Your task to perform on an android device: What's the price of the LG TV? Image 0: 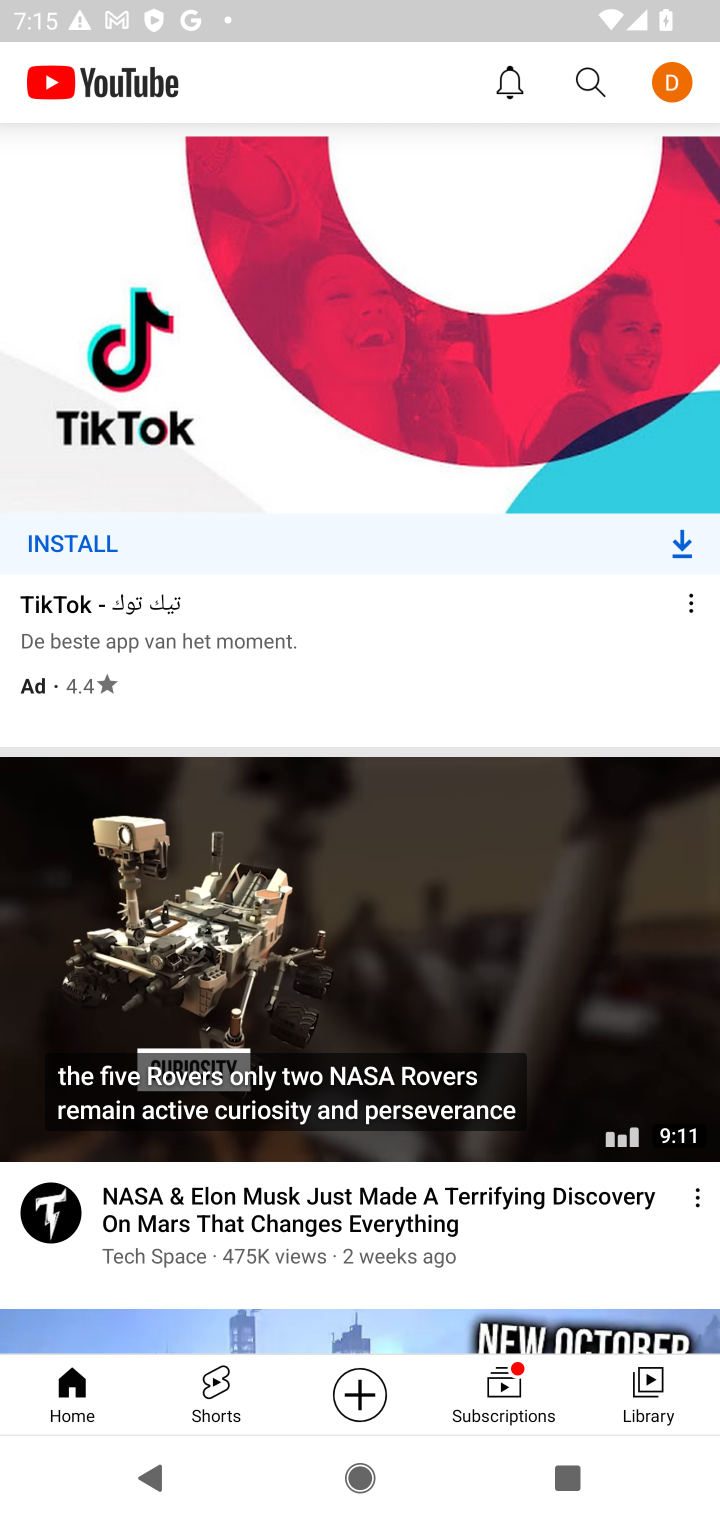
Step 0: press home button
Your task to perform on an android device: What's the price of the LG TV? Image 1: 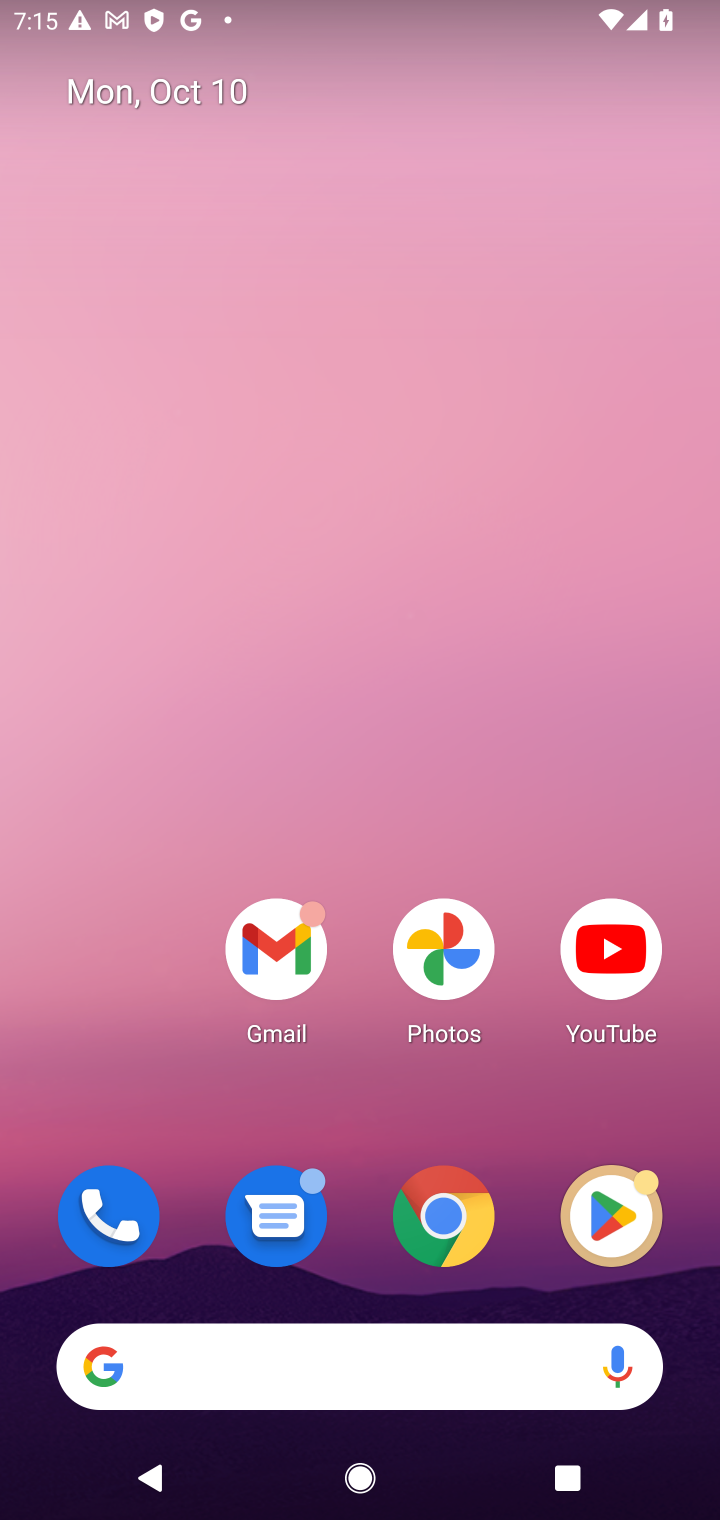
Step 1: drag from (339, 1303) to (575, 443)
Your task to perform on an android device: What's the price of the LG TV? Image 2: 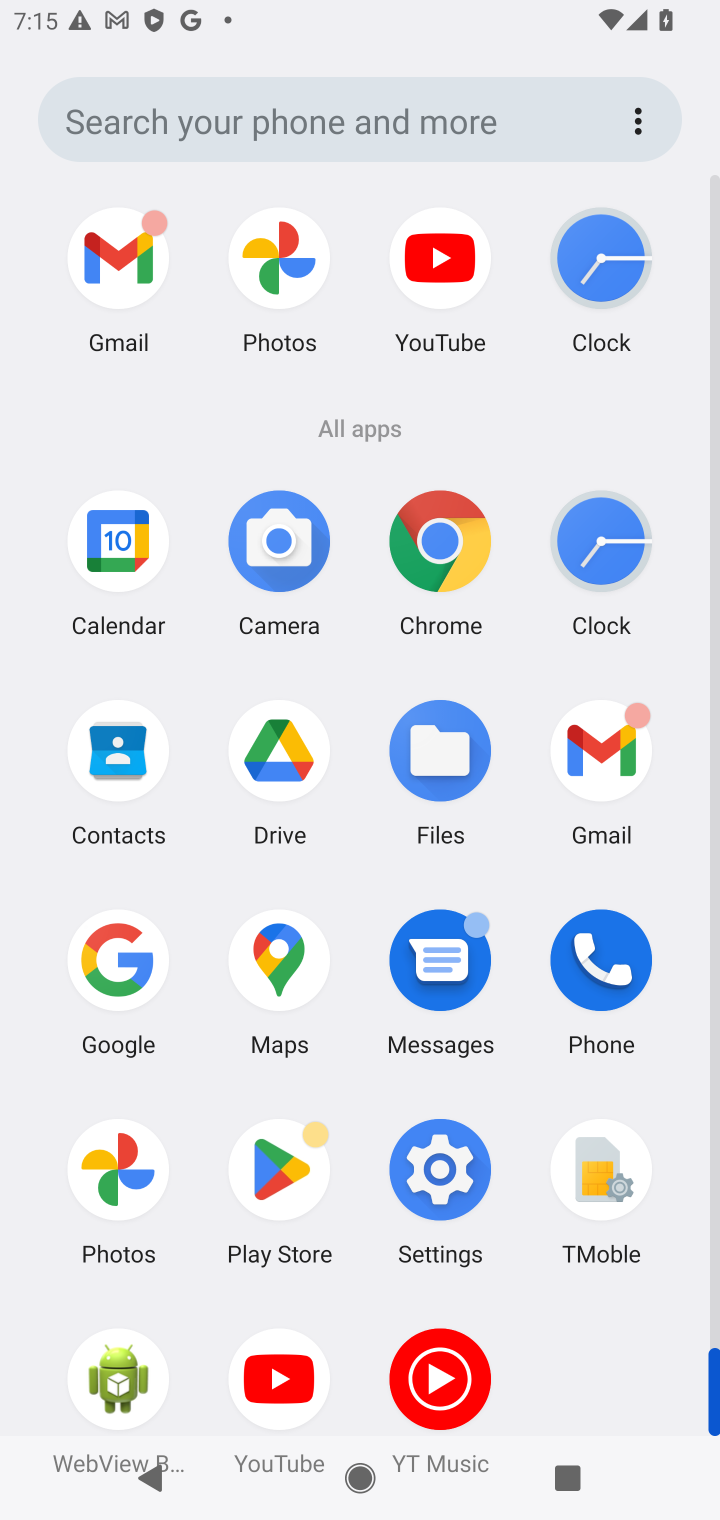
Step 2: click (99, 958)
Your task to perform on an android device: What's the price of the LG TV? Image 3: 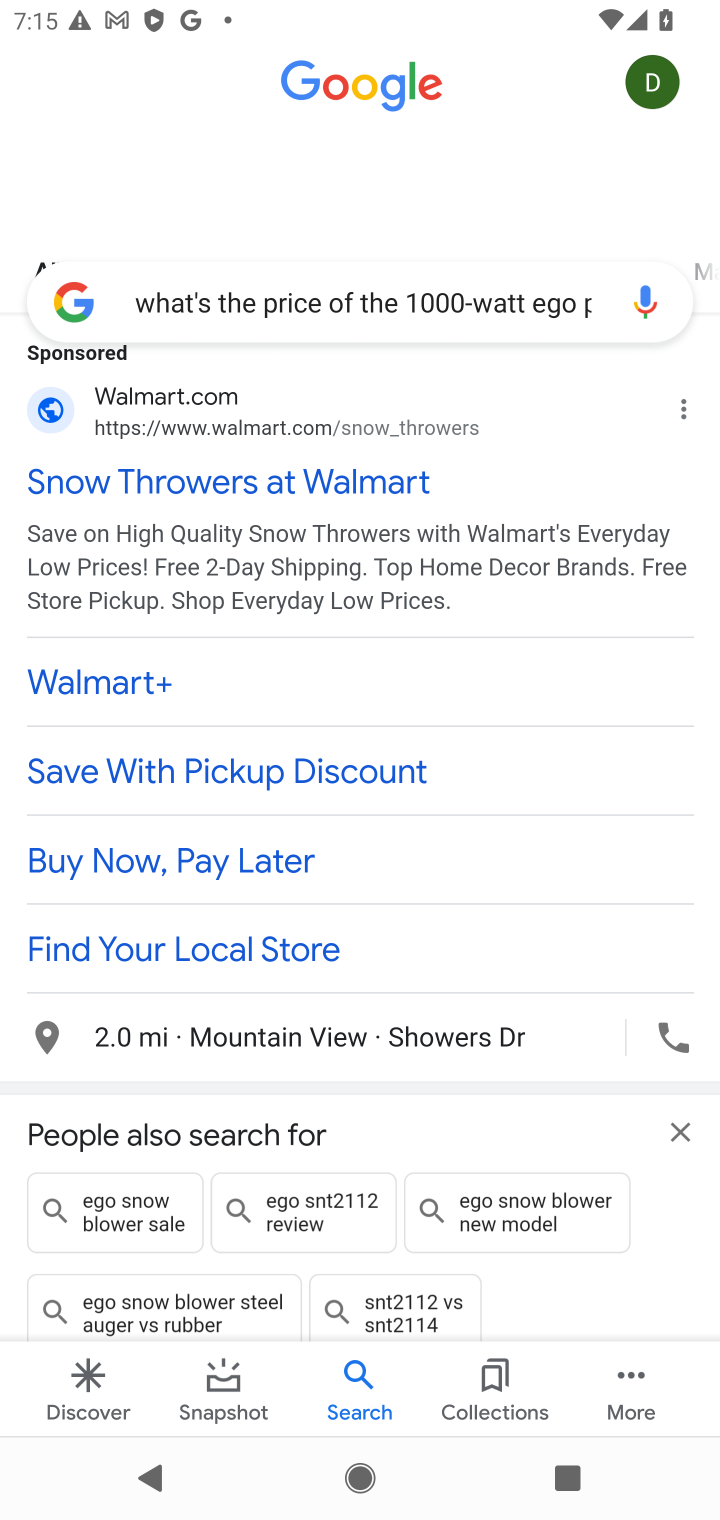
Step 3: click (358, 305)
Your task to perform on an android device: What's the price of the LG TV? Image 4: 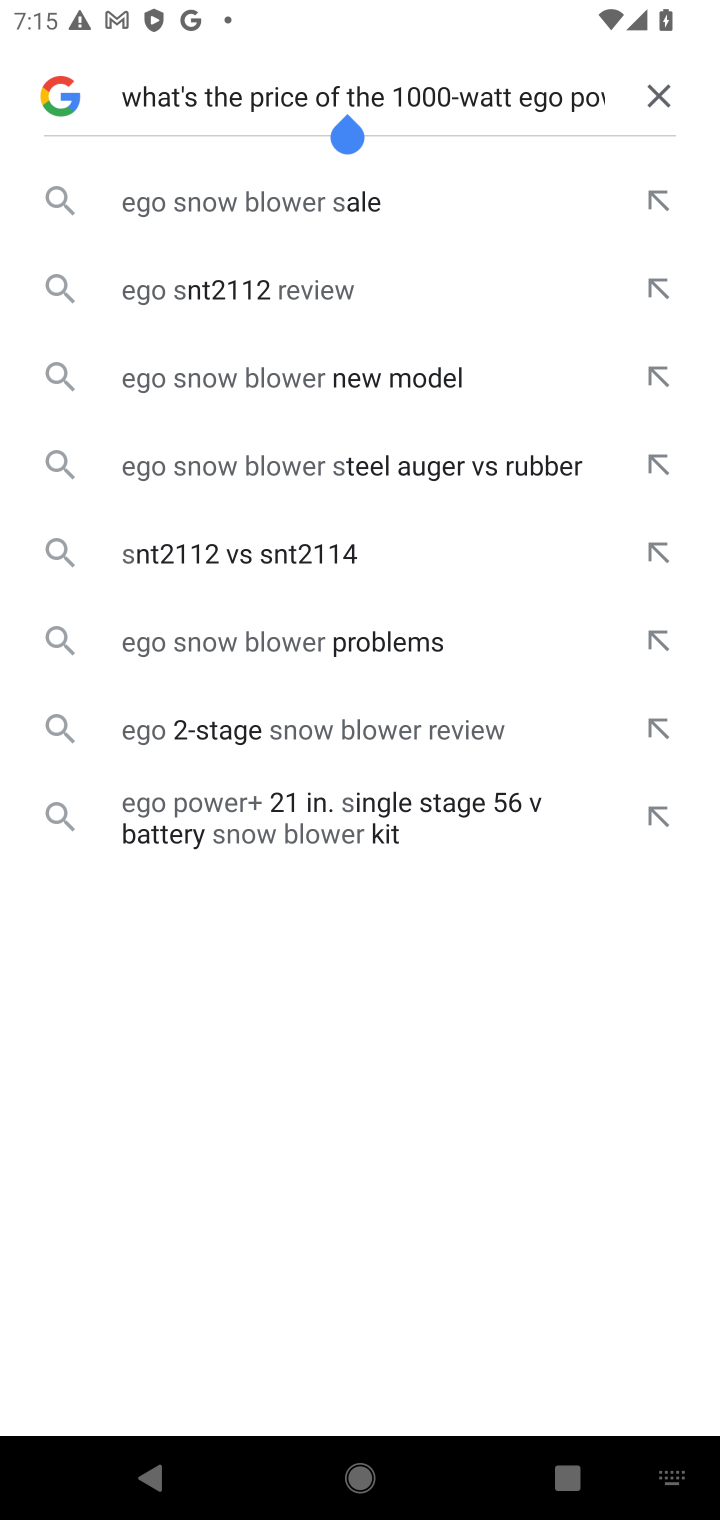
Step 4: click (644, 87)
Your task to perform on an android device: What's the price of the LG TV? Image 5: 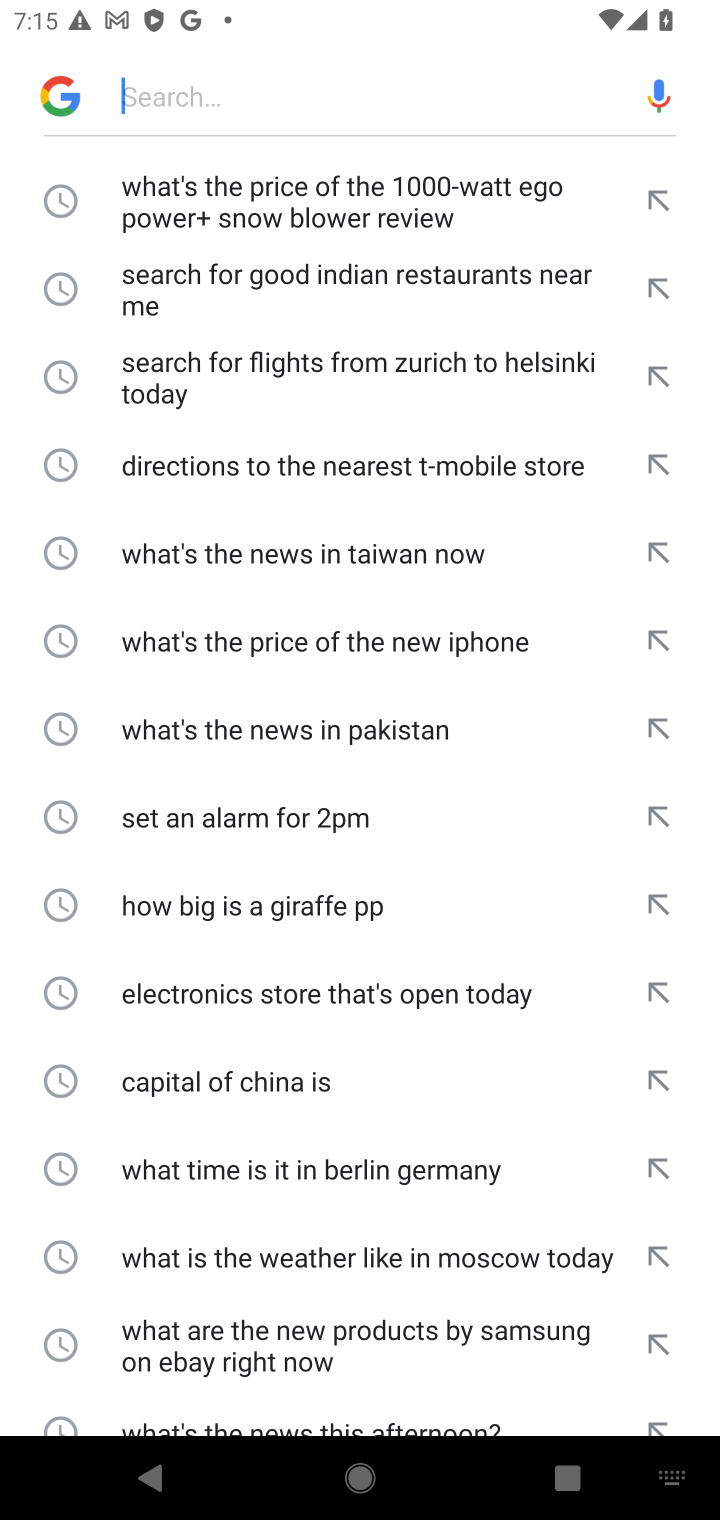
Step 5: type "What's the price of the LG TV?"
Your task to perform on an android device: What's the price of the LG TV? Image 6: 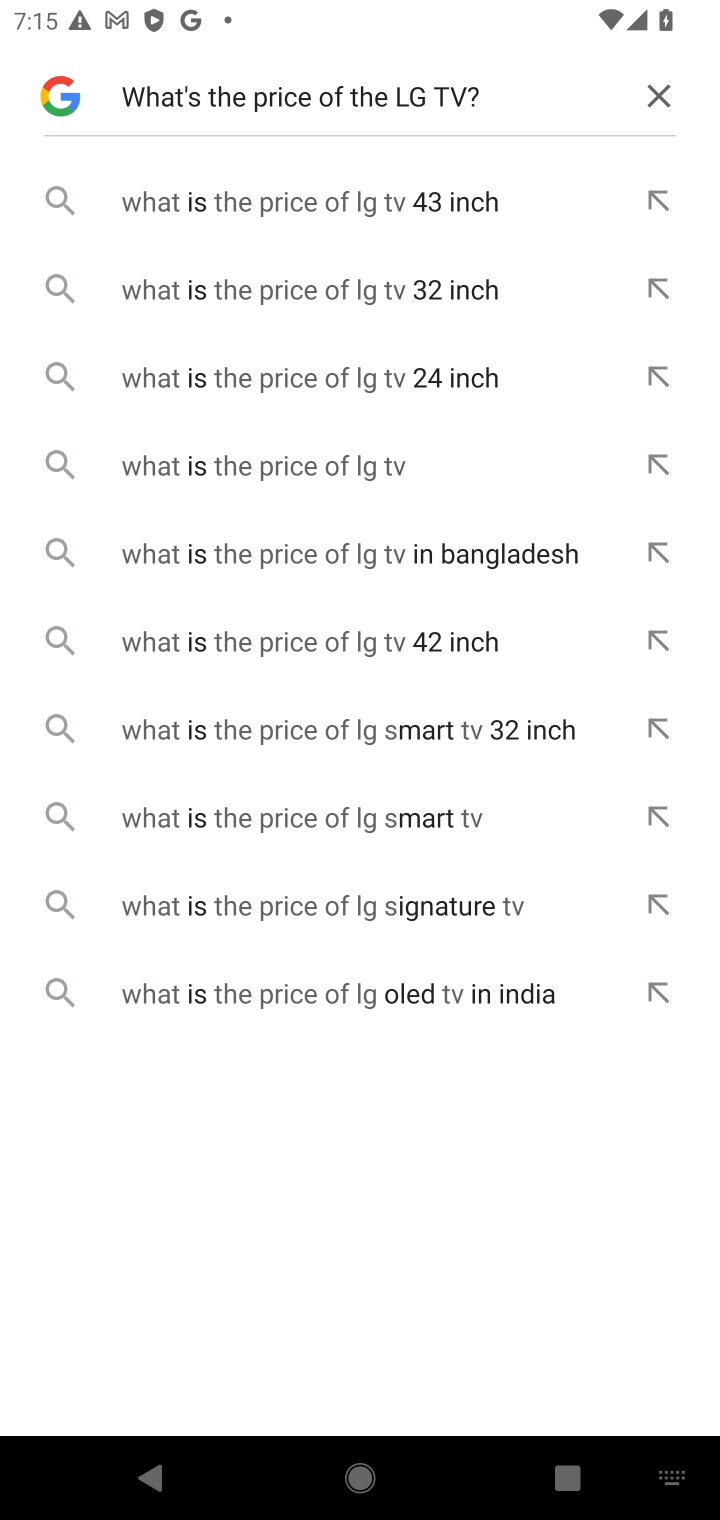
Step 6: click (389, 202)
Your task to perform on an android device: What's the price of the LG TV? Image 7: 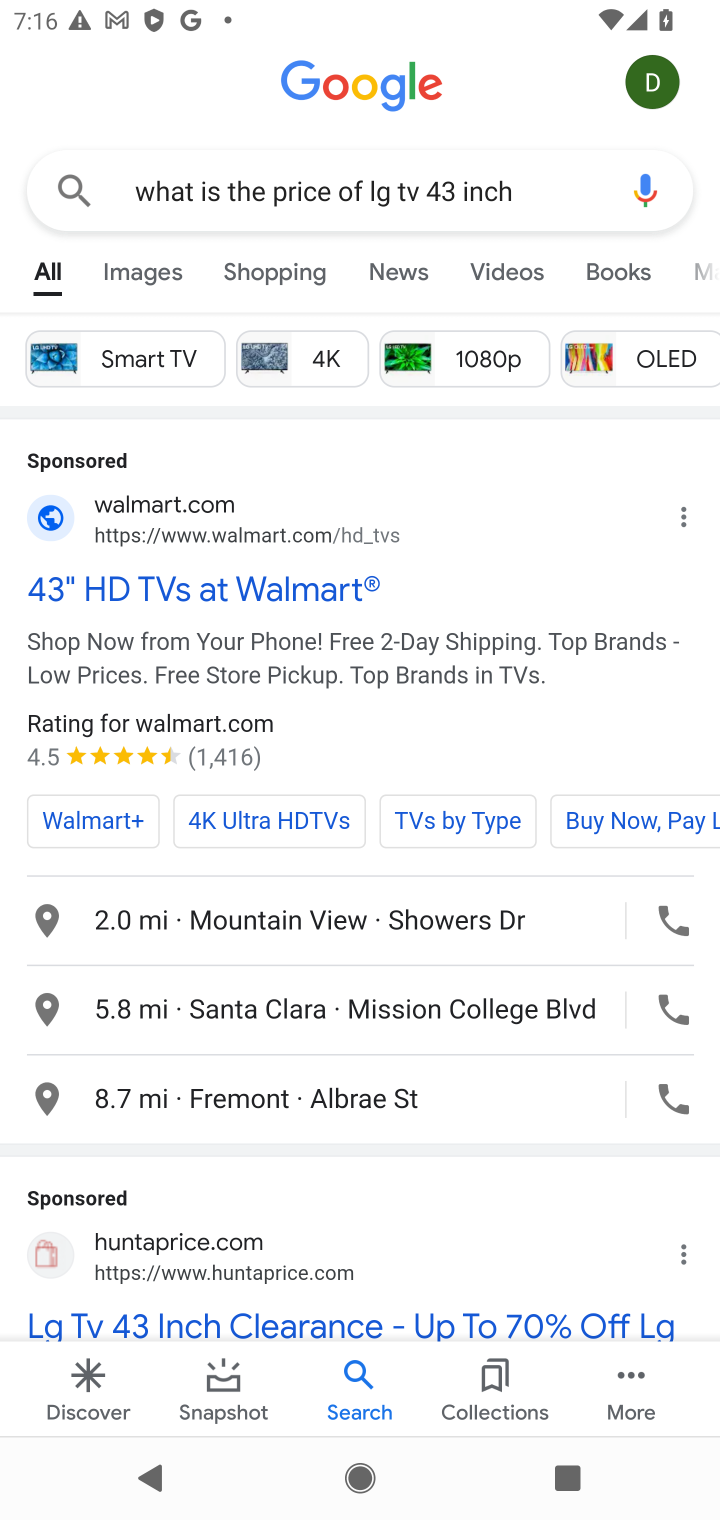
Step 7: click (176, 594)
Your task to perform on an android device: What's the price of the LG TV? Image 8: 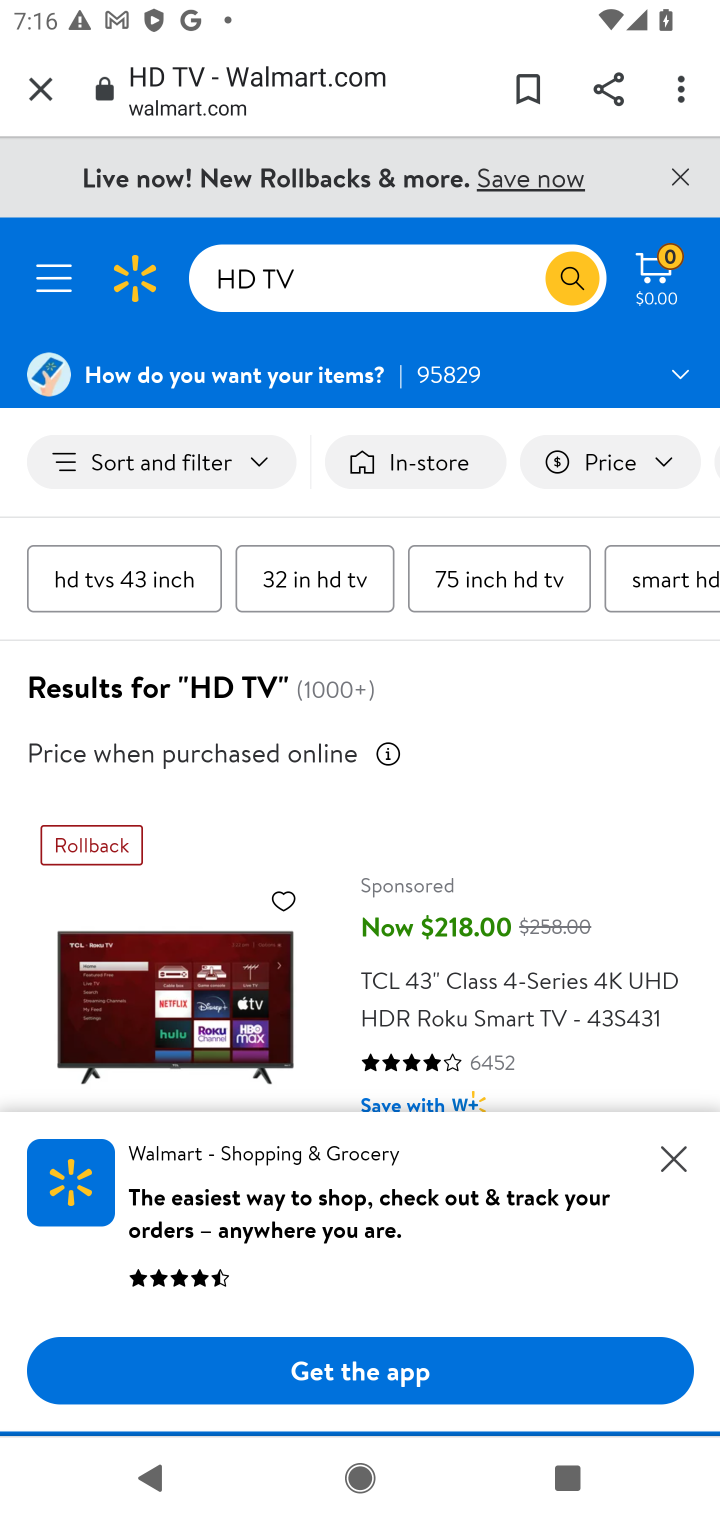
Step 8: task complete